Your task to perform on an android device: See recent photos Image 0: 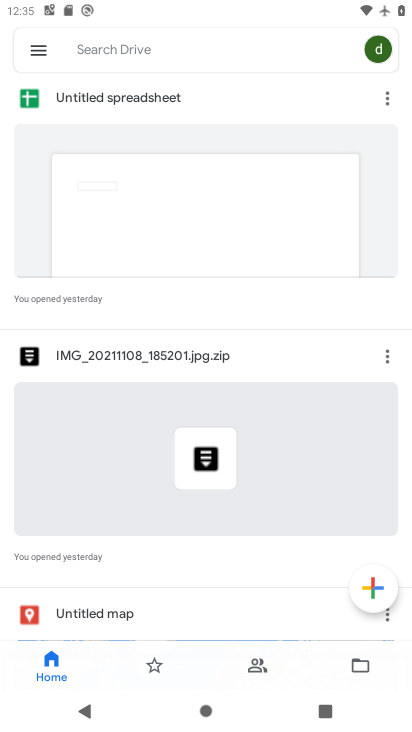
Step 0: press home button
Your task to perform on an android device: See recent photos Image 1: 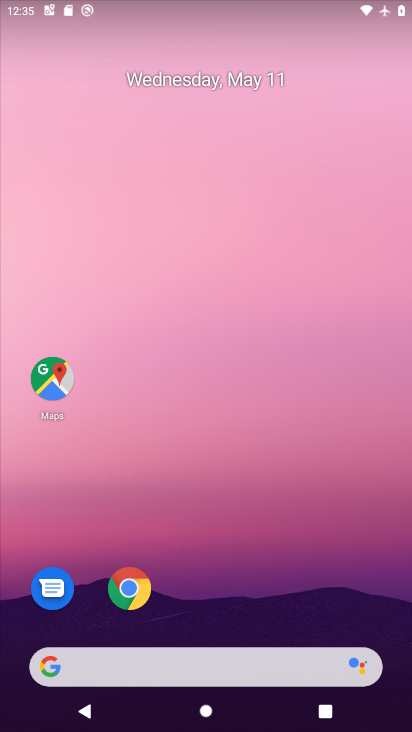
Step 1: drag from (164, 649) to (211, 362)
Your task to perform on an android device: See recent photos Image 2: 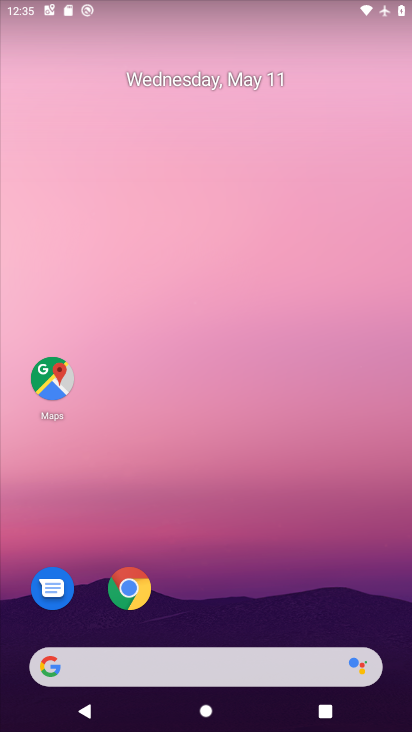
Step 2: drag from (263, 645) to (267, 253)
Your task to perform on an android device: See recent photos Image 3: 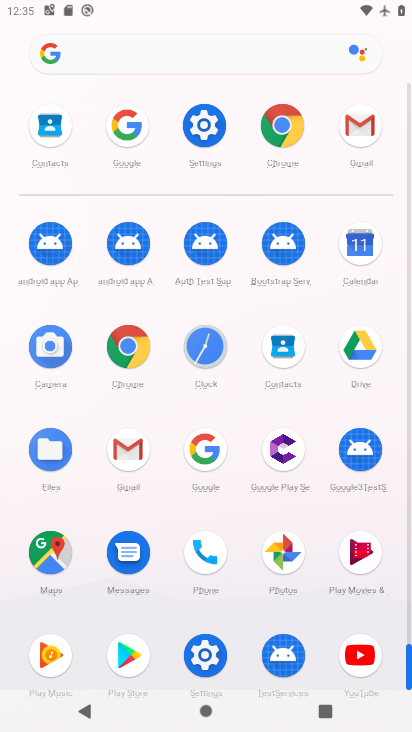
Step 3: click (285, 547)
Your task to perform on an android device: See recent photos Image 4: 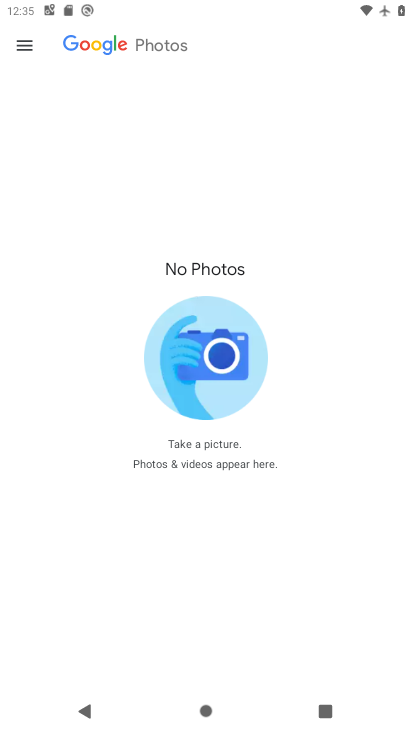
Step 4: task complete